Your task to perform on an android device: Go to privacy settings Image 0: 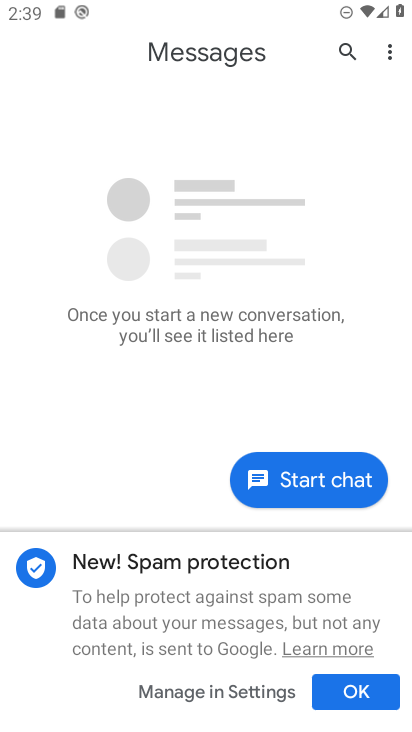
Step 0: press home button
Your task to perform on an android device: Go to privacy settings Image 1: 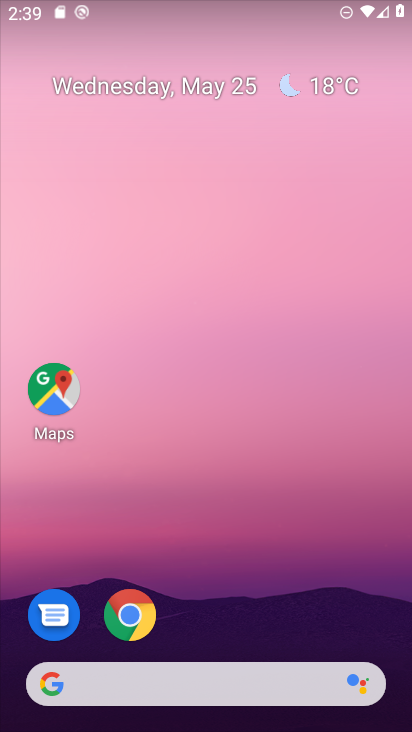
Step 1: drag from (233, 547) to (226, 7)
Your task to perform on an android device: Go to privacy settings Image 2: 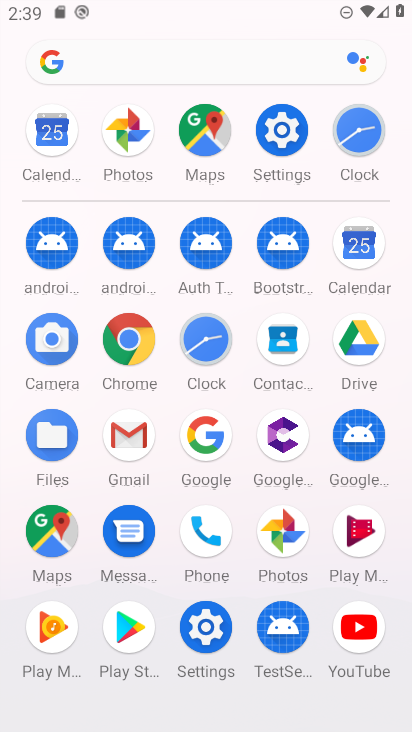
Step 2: click (272, 127)
Your task to perform on an android device: Go to privacy settings Image 3: 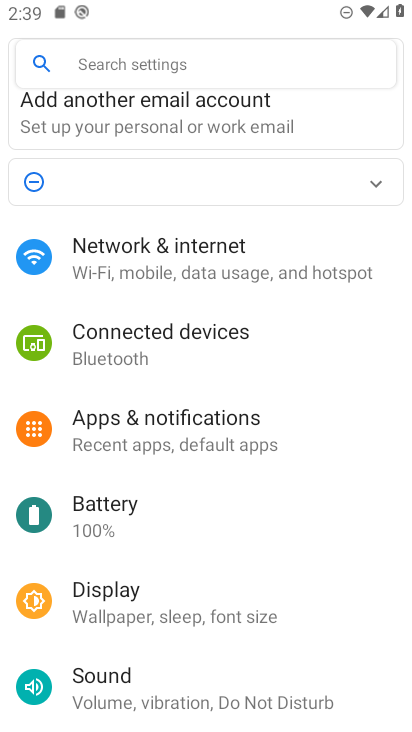
Step 3: drag from (228, 508) to (287, 47)
Your task to perform on an android device: Go to privacy settings Image 4: 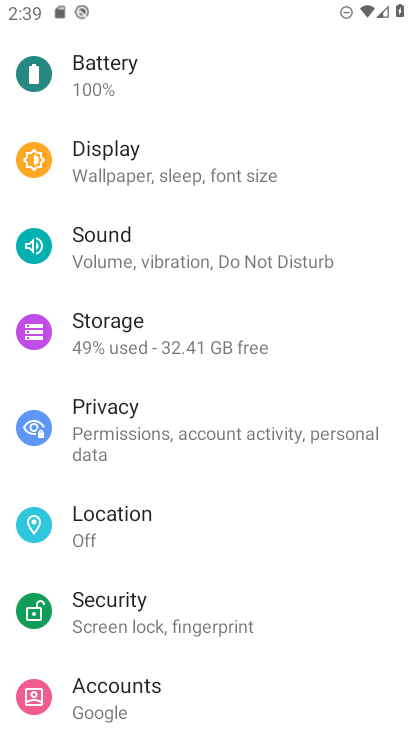
Step 4: click (218, 420)
Your task to perform on an android device: Go to privacy settings Image 5: 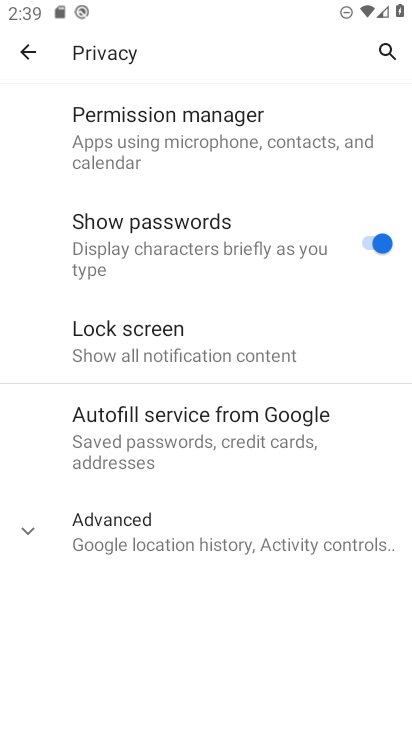
Step 5: task complete